Your task to perform on an android device: What's on my calendar tomorrow? Image 0: 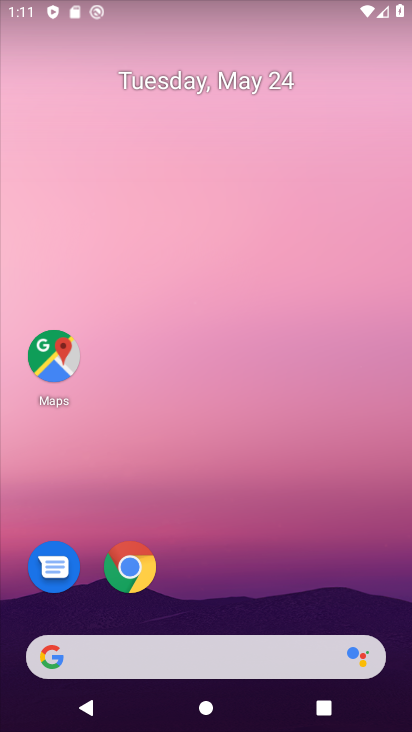
Step 0: drag from (254, 572) to (329, 4)
Your task to perform on an android device: What's on my calendar tomorrow? Image 1: 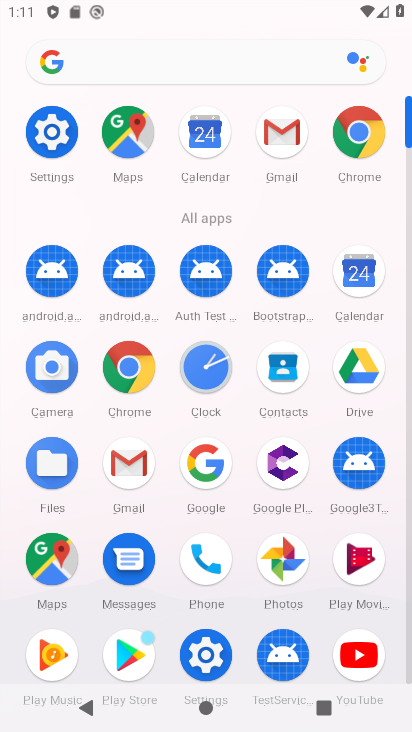
Step 1: click (346, 281)
Your task to perform on an android device: What's on my calendar tomorrow? Image 2: 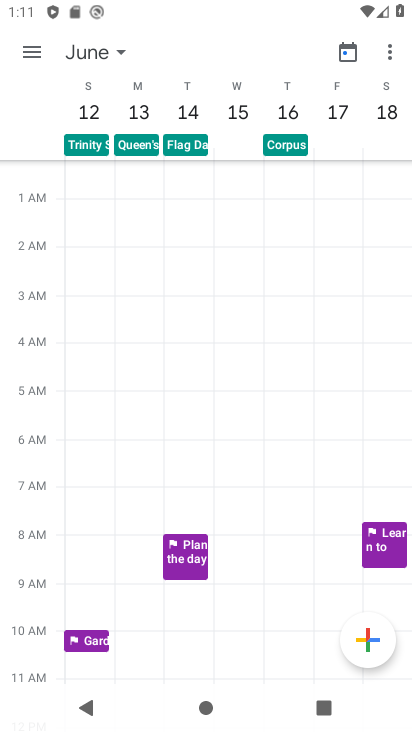
Step 2: click (99, 41)
Your task to perform on an android device: What's on my calendar tomorrow? Image 3: 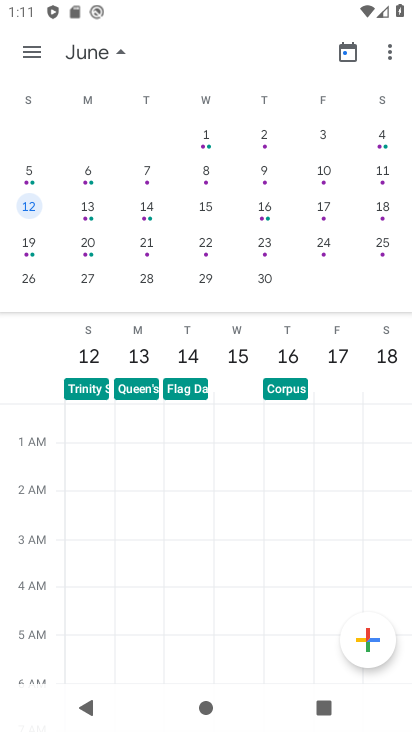
Step 3: drag from (107, 207) to (405, 345)
Your task to perform on an android device: What's on my calendar tomorrow? Image 4: 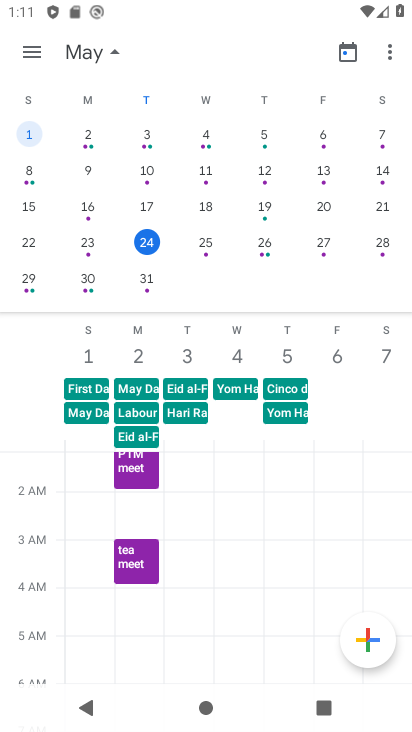
Step 4: click (140, 243)
Your task to perform on an android device: What's on my calendar tomorrow? Image 5: 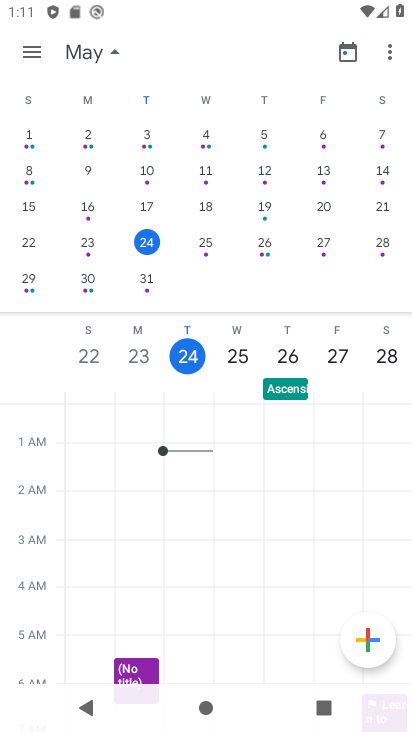
Step 5: click (25, 51)
Your task to perform on an android device: What's on my calendar tomorrow? Image 6: 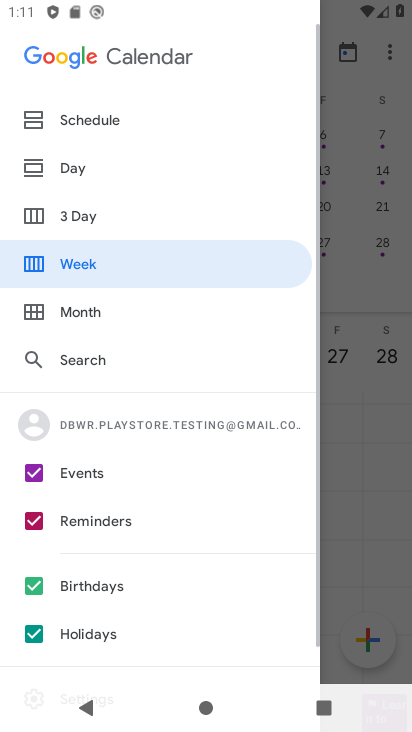
Step 6: click (80, 212)
Your task to perform on an android device: What's on my calendar tomorrow? Image 7: 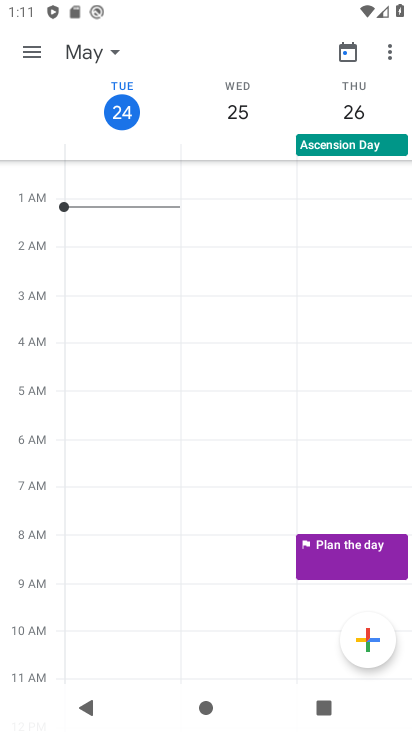
Step 7: task complete